Your task to perform on an android device: Search for sushi restaurants on Maps Image 0: 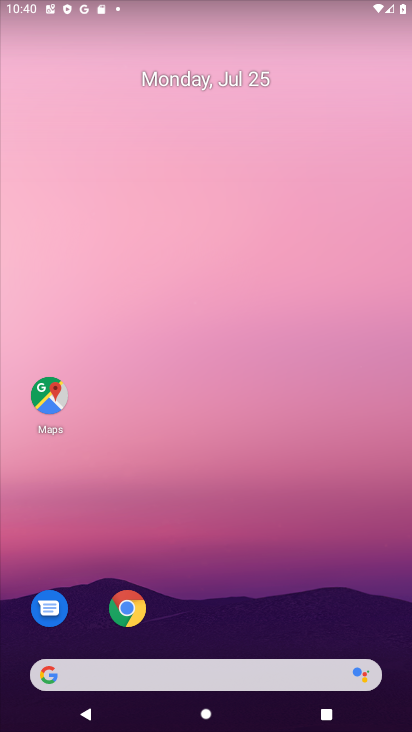
Step 0: drag from (256, 674) to (326, 165)
Your task to perform on an android device: Search for sushi restaurants on Maps Image 1: 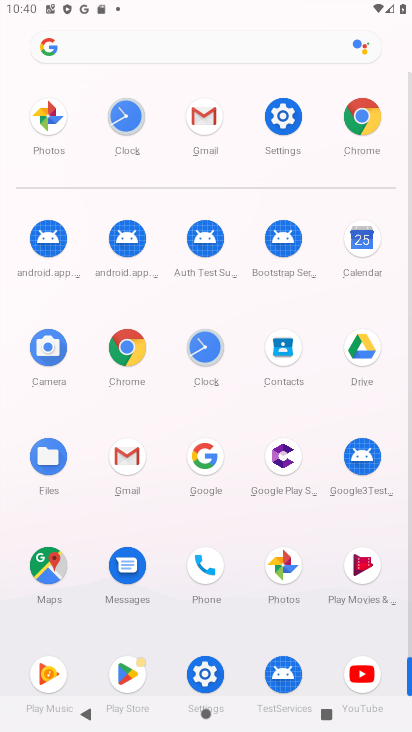
Step 1: click (29, 581)
Your task to perform on an android device: Search for sushi restaurants on Maps Image 2: 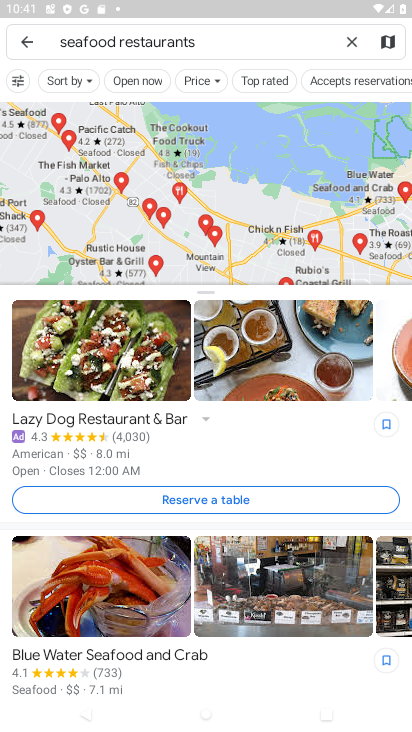
Step 2: click (351, 43)
Your task to perform on an android device: Search for sushi restaurants on Maps Image 3: 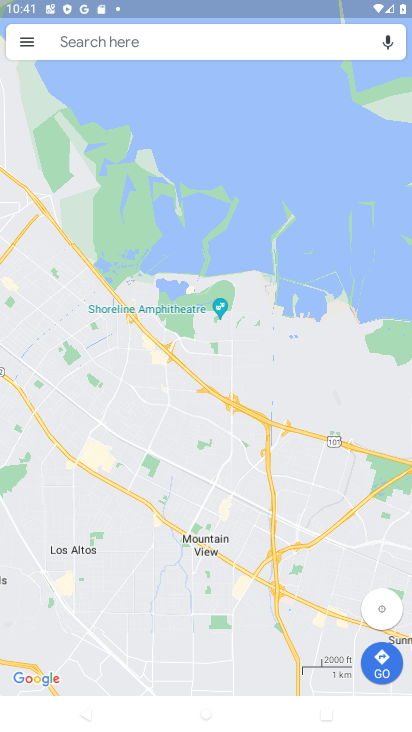
Step 3: click (282, 48)
Your task to perform on an android device: Search for sushi restaurants on Maps Image 4: 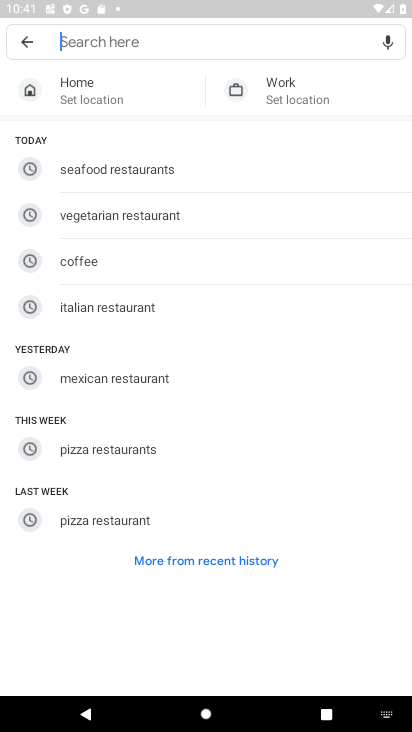
Step 4: type "sushi"
Your task to perform on an android device: Search for sushi restaurants on Maps Image 5: 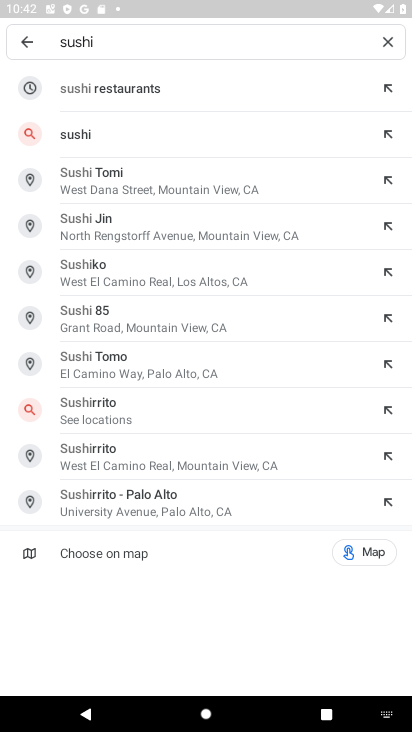
Step 5: click (105, 94)
Your task to perform on an android device: Search for sushi restaurants on Maps Image 6: 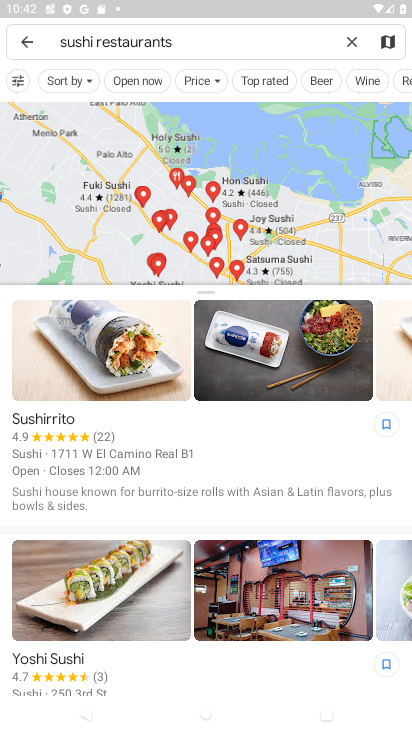
Step 6: task complete